Your task to perform on an android device: Open the phone app and click the voicemail tab. Image 0: 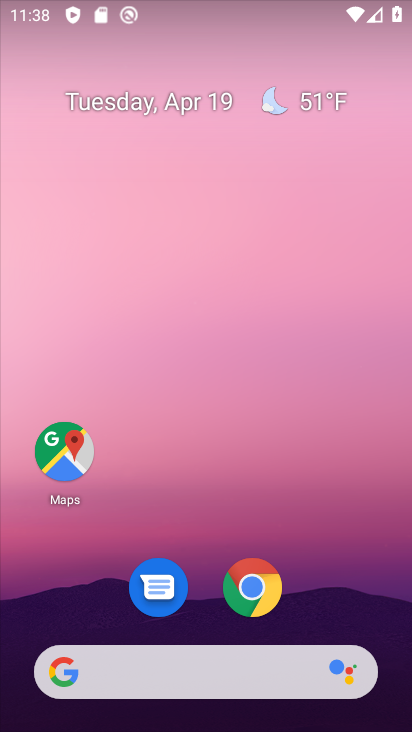
Step 0: drag from (204, 491) to (256, 28)
Your task to perform on an android device: Open the phone app and click the voicemail tab. Image 1: 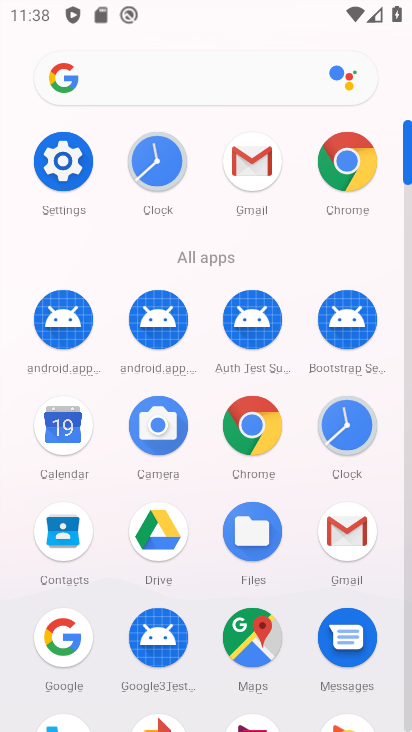
Step 1: drag from (206, 547) to (229, 164)
Your task to perform on an android device: Open the phone app and click the voicemail tab. Image 2: 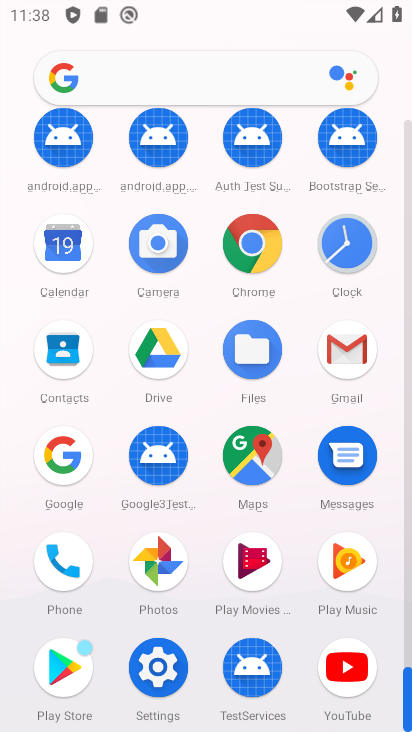
Step 2: click (52, 561)
Your task to perform on an android device: Open the phone app and click the voicemail tab. Image 3: 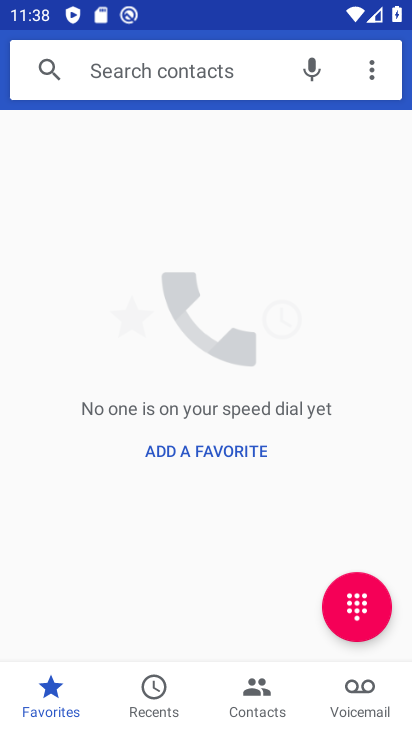
Step 3: click (370, 689)
Your task to perform on an android device: Open the phone app and click the voicemail tab. Image 4: 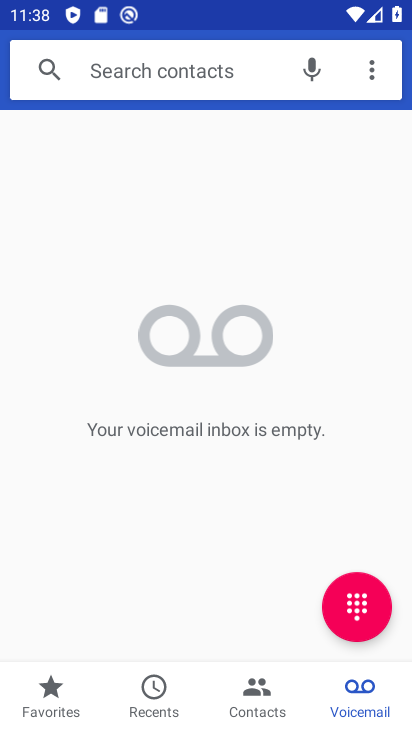
Step 4: task complete